Your task to perform on an android device: clear history in the chrome app Image 0: 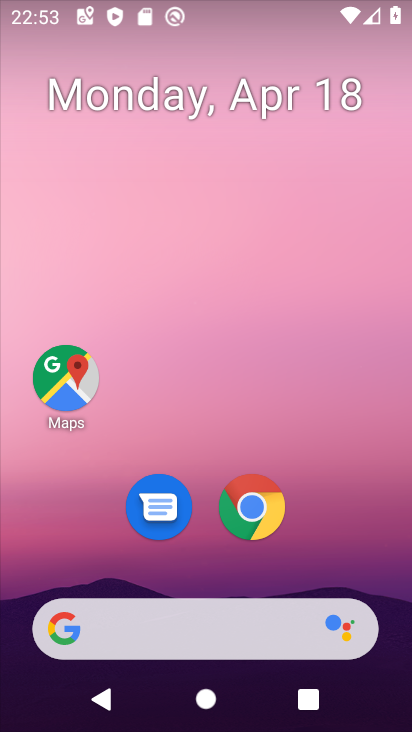
Step 0: click (256, 510)
Your task to perform on an android device: clear history in the chrome app Image 1: 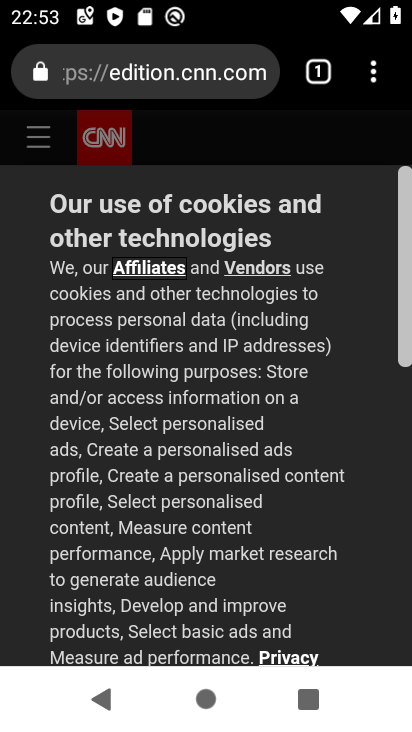
Step 1: click (372, 77)
Your task to perform on an android device: clear history in the chrome app Image 2: 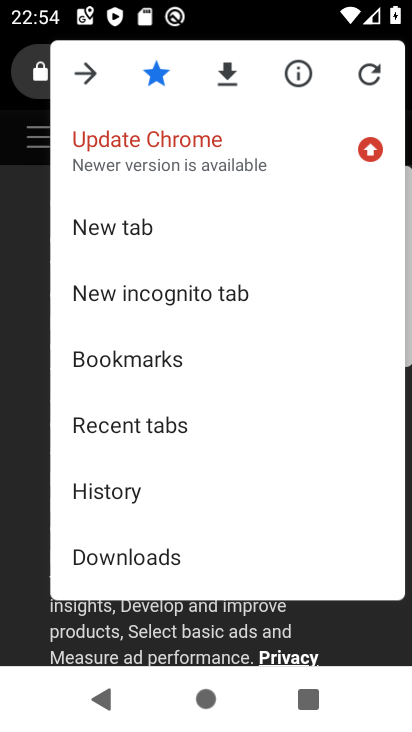
Step 2: drag from (273, 507) to (310, 175)
Your task to perform on an android device: clear history in the chrome app Image 3: 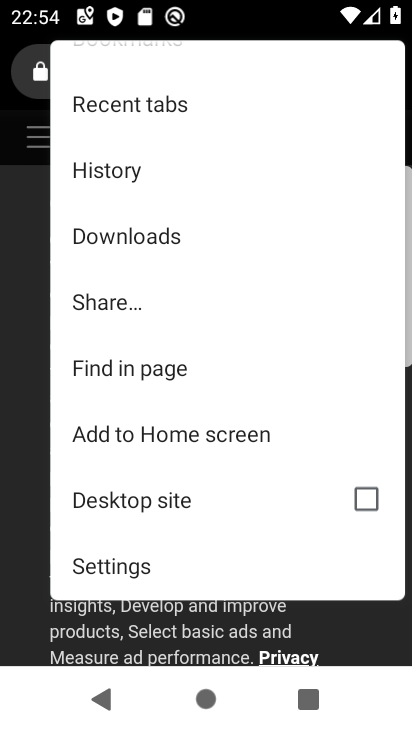
Step 3: drag from (263, 394) to (270, 101)
Your task to perform on an android device: clear history in the chrome app Image 4: 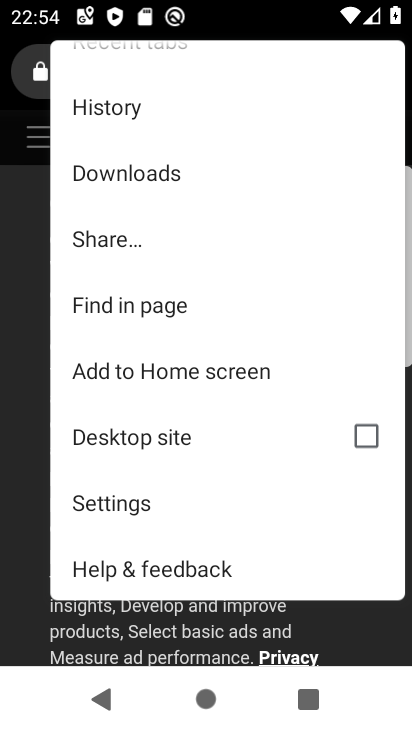
Step 4: click (173, 501)
Your task to perform on an android device: clear history in the chrome app Image 5: 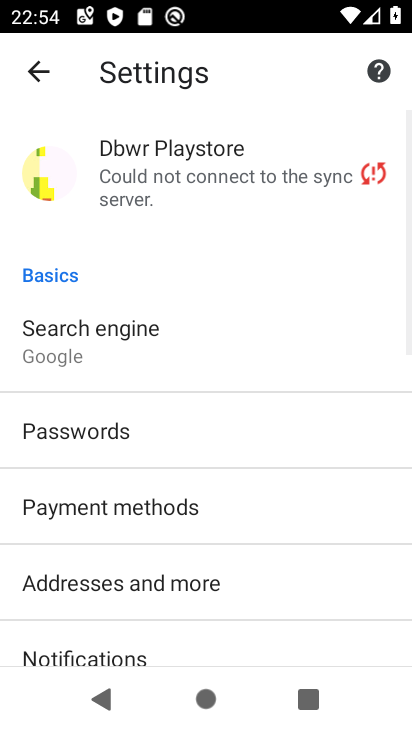
Step 5: drag from (249, 557) to (306, 153)
Your task to perform on an android device: clear history in the chrome app Image 6: 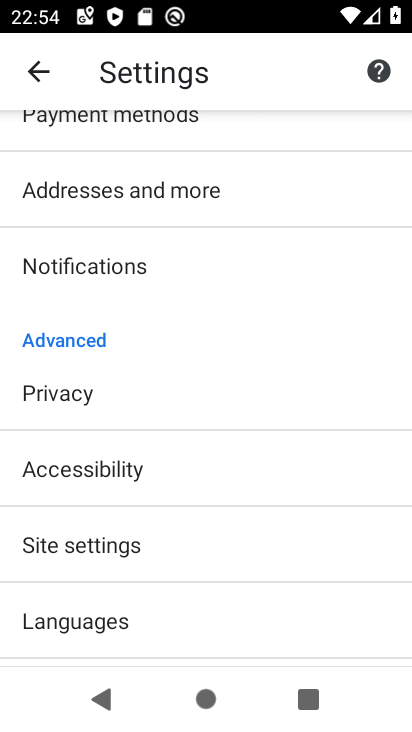
Step 6: click (107, 405)
Your task to perform on an android device: clear history in the chrome app Image 7: 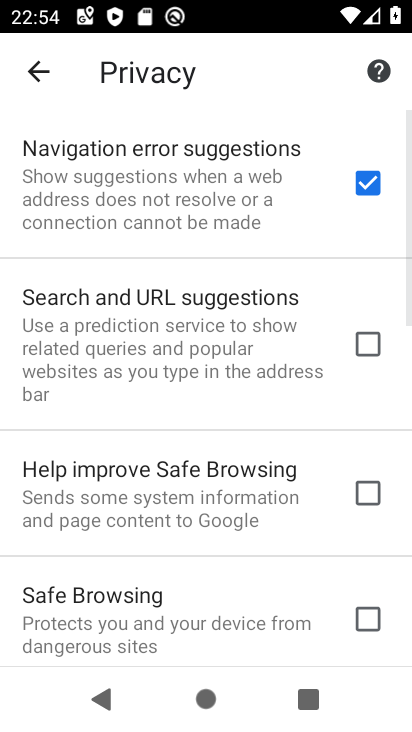
Step 7: drag from (194, 568) to (242, 176)
Your task to perform on an android device: clear history in the chrome app Image 8: 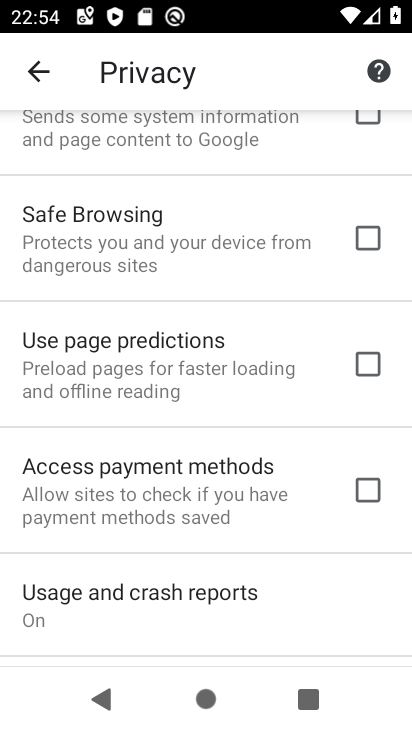
Step 8: drag from (192, 545) to (186, 176)
Your task to perform on an android device: clear history in the chrome app Image 9: 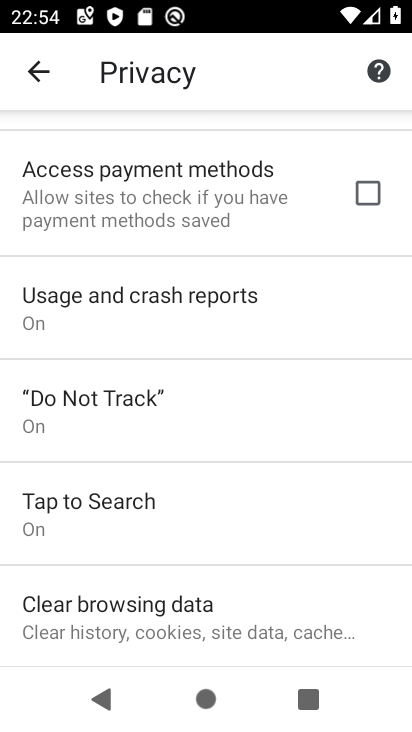
Step 9: click (159, 615)
Your task to perform on an android device: clear history in the chrome app Image 10: 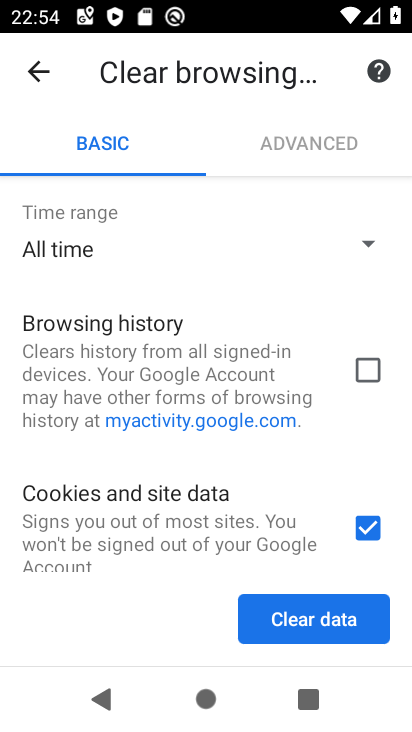
Step 10: click (368, 362)
Your task to perform on an android device: clear history in the chrome app Image 11: 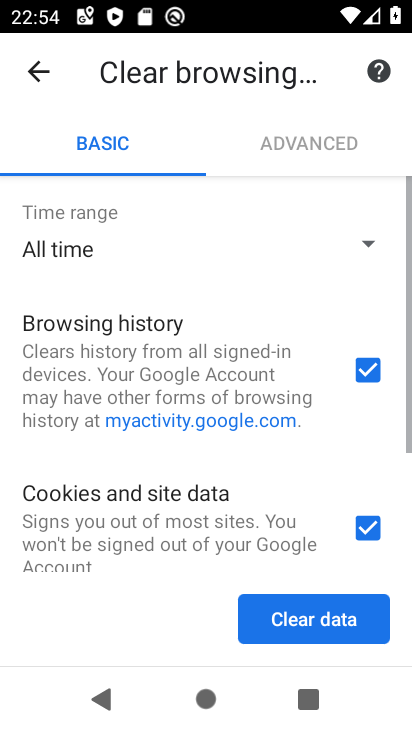
Step 11: click (373, 522)
Your task to perform on an android device: clear history in the chrome app Image 12: 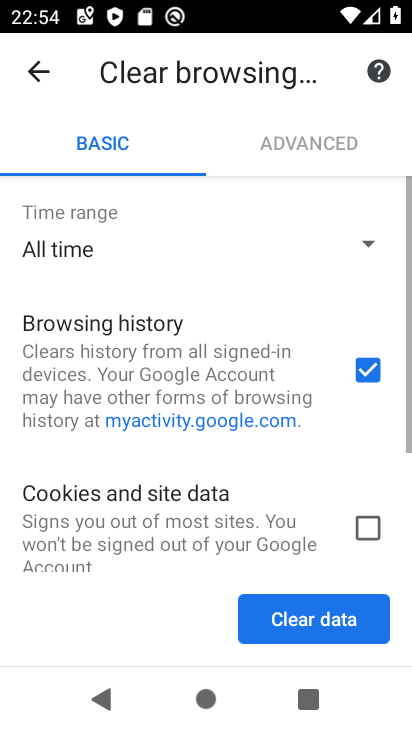
Step 12: drag from (206, 479) to (209, 238)
Your task to perform on an android device: clear history in the chrome app Image 13: 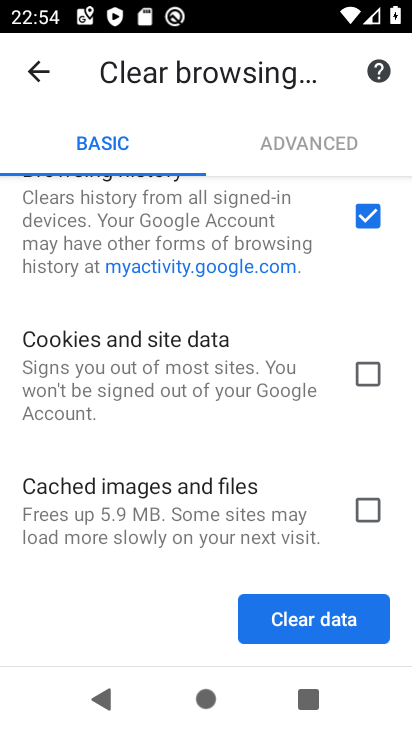
Step 13: click (364, 626)
Your task to perform on an android device: clear history in the chrome app Image 14: 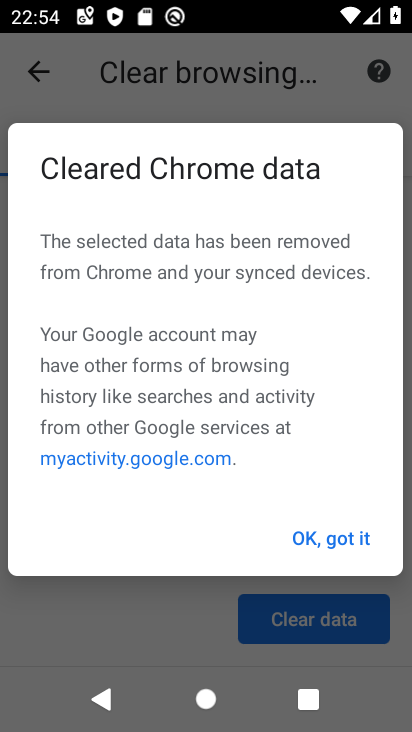
Step 14: click (342, 523)
Your task to perform on an android device: clear history in the chrome app Image 15: 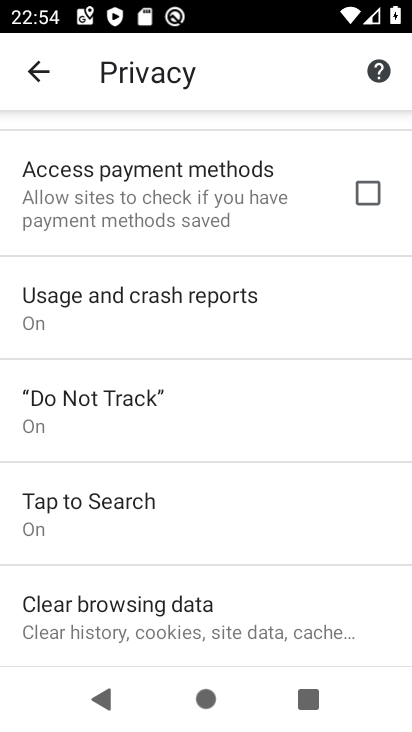
Step 15: task complete